Your task to perform on an android device: turn on location history Image 0: 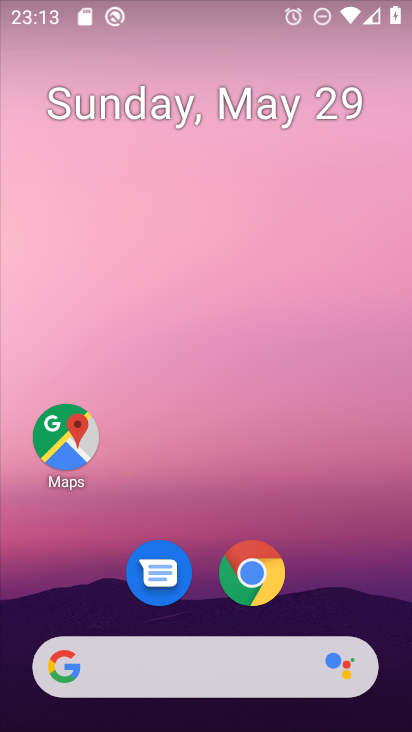
Step 0: drag from (236, 492) to (283, 16)
Your task to perform on an android device: turn on location history Image 1: 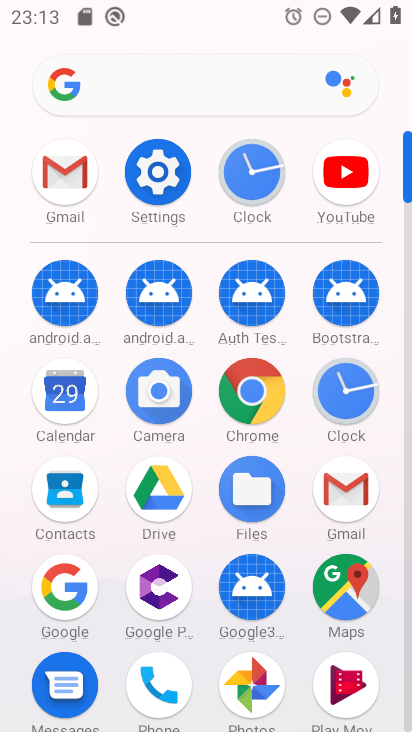
Step 1: click (157, 176)
Your task to perform on an android device: turn on location history Image 2: 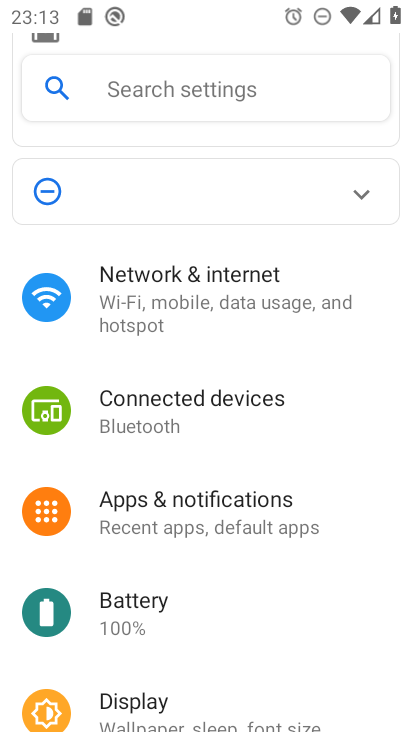
Step 2: drag from (210, 566) to (234, 104)
Your task to perform on an android device: turn on location history Image 3: 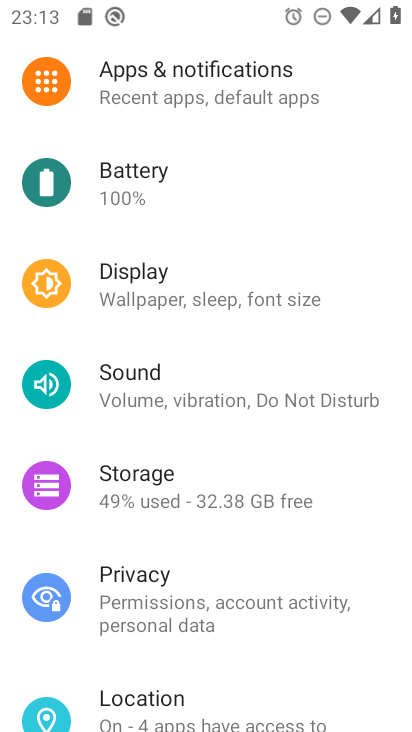
Step 3: drag from (195, 647) to (212, 354)
Your task to perform on an android device: turn on location history Image 4: 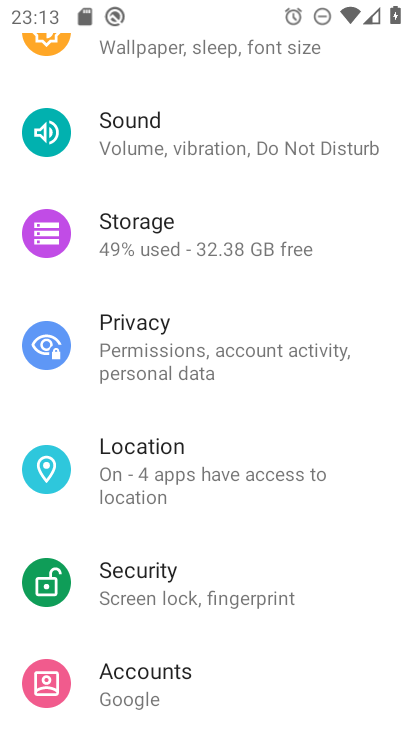
Step 4: click (202, 456)
Your task to perform on an android device: turn on location history Image 5: 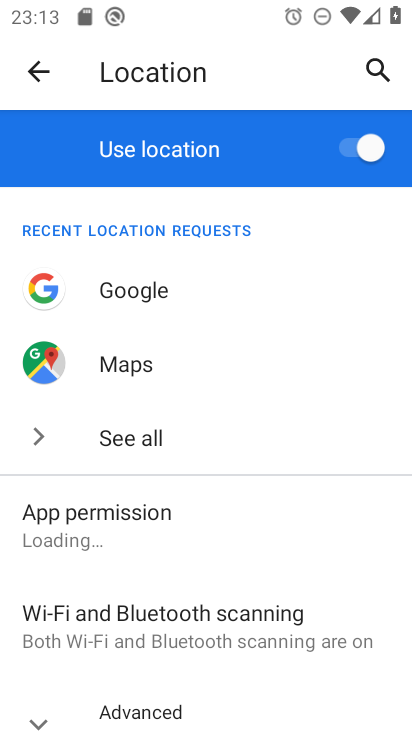
Step 5: drag from (242, 559) to (261, 221)
Your task to perform on an android device: turn on location history Image 6: 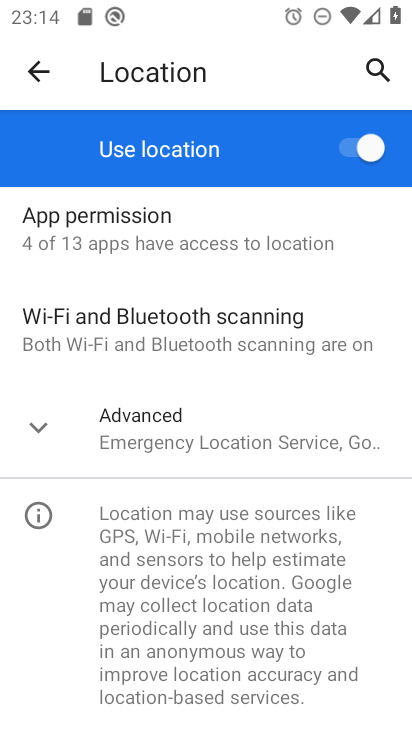
Step 6: click (35, 425)
Your task to perform on an android device: turn on location history Image 7: 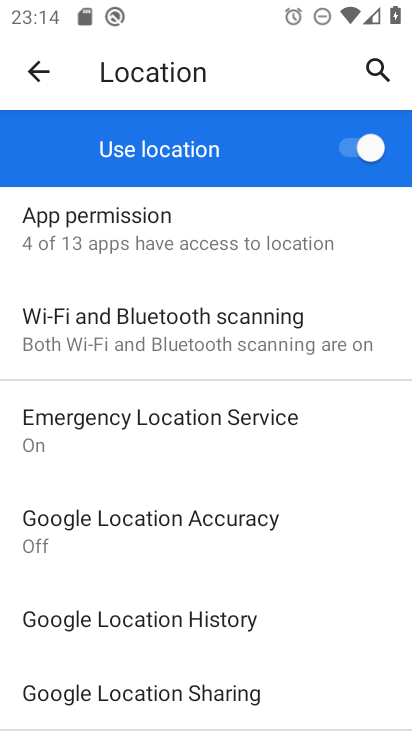
Step 7: click (213, 616)
Your task to perform on an android device: turn on location history Image 8: 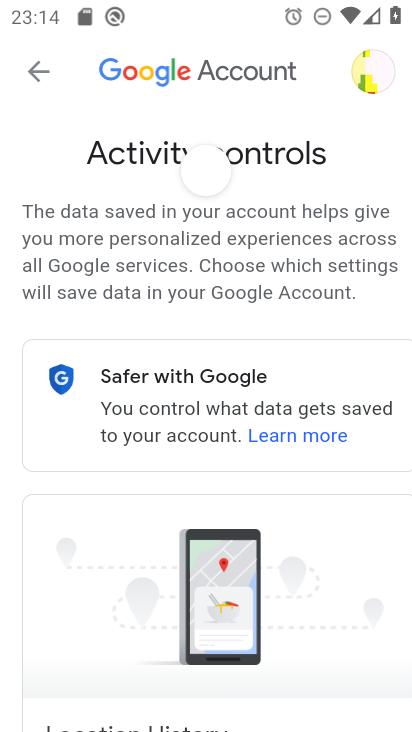
Step 8: task complete